Your task to perform on an android device: Open eBay Image 0: 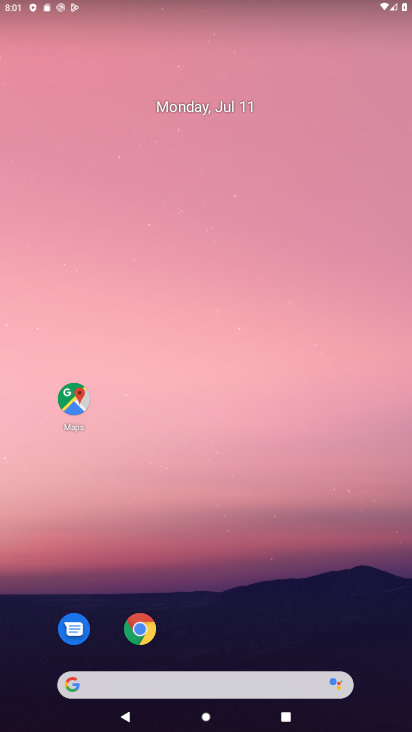
Step 0: click (137, 623)
Your task to perform on an android device: Open eBay Image 1: 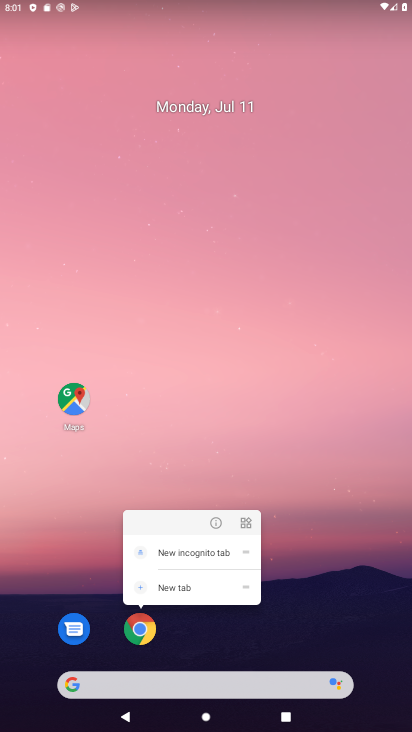
Step 1: click (143, 632)
Your task to perform on an android device: Open eBay Image 2: 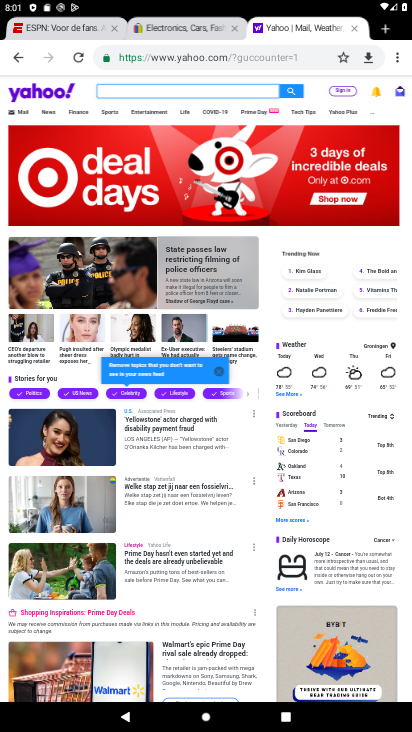
Step 2: click (190, 29)
Your task to perform on an android device: Open eBay Image 3: 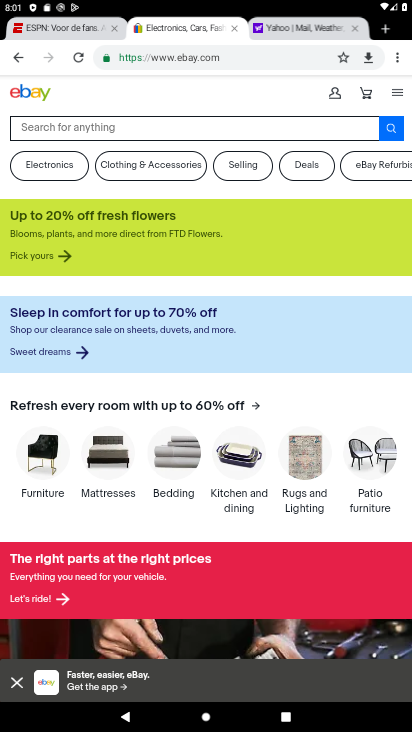
Step 3: task complete